Your task to perform on an android device: Show me popular videos on Youtube Image 0: 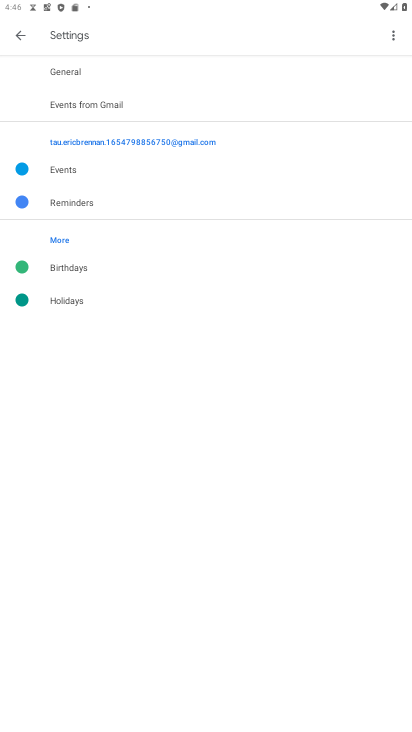
Step 0: press home button
Your task to perform on an android device: Show me popular videos on Youtube Image 1: 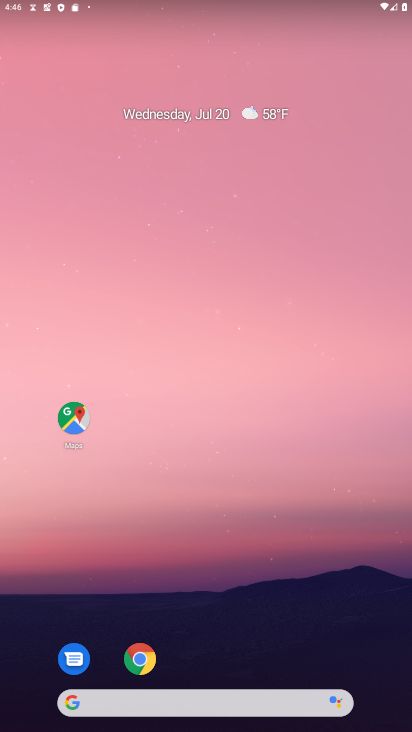
Step 1: drag from (243, 669) to (330, 86)
Your task to perform on an android device: Show me popular videos on Youtube Image 2: 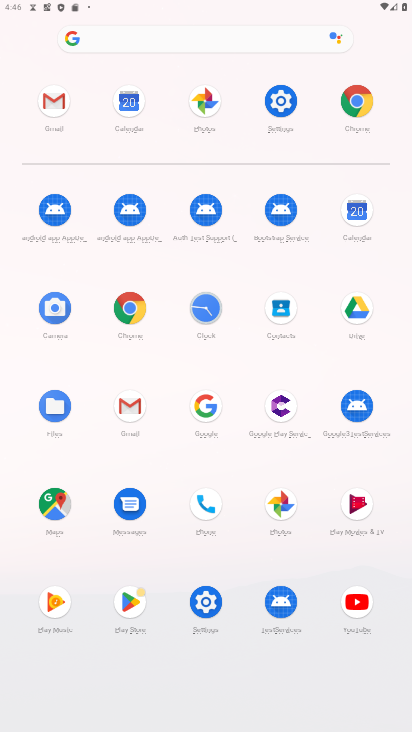
Step 2: click (363, 602)
Your task to perform on an android device: Show me popular videos on Youtube Image 3: 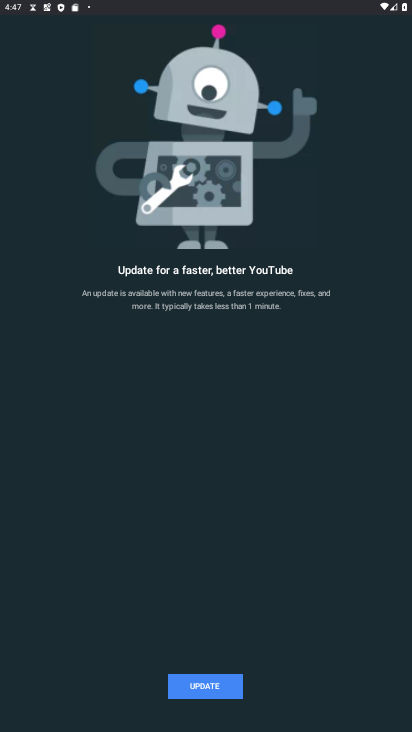
Step 3: click (212, 690)
Your task to perform on an android device: Show me popular videos on Youtube Image 4: 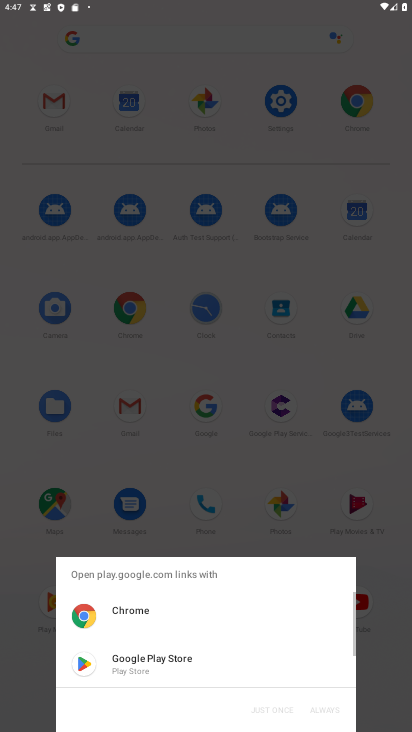
Step 4: click (146, 656)
Your task to perform on an android device: Show me popular videos on Youtube Image 5: 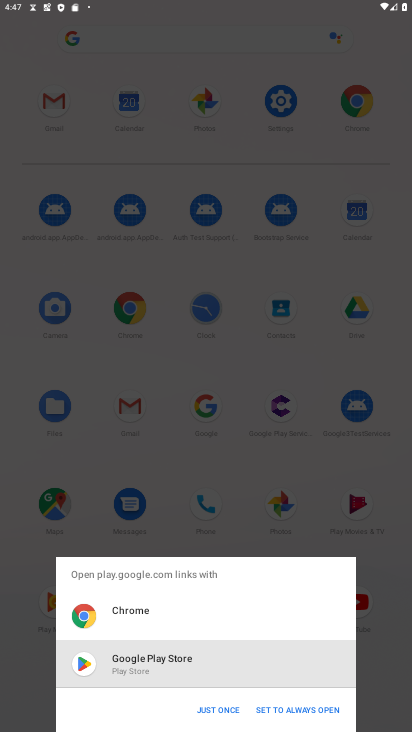
Step 5: click (218, 703)
Your task to perform on an android device: Show me popular videos on Youtube Image 6: 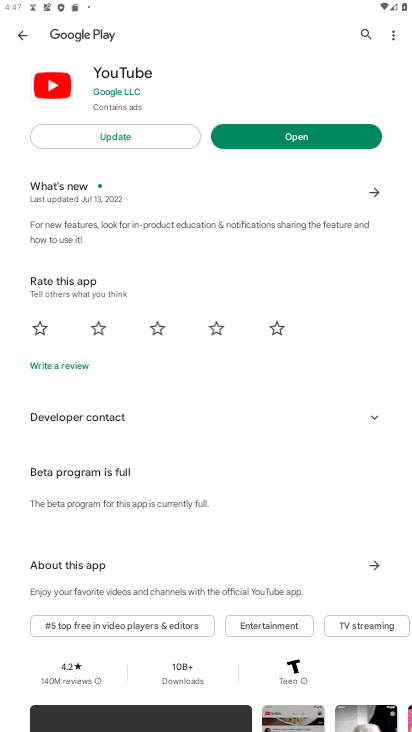
Step 6: click (132, 139)
Your task to perform on an android device: Show me popular videos on Youtube Image 7: 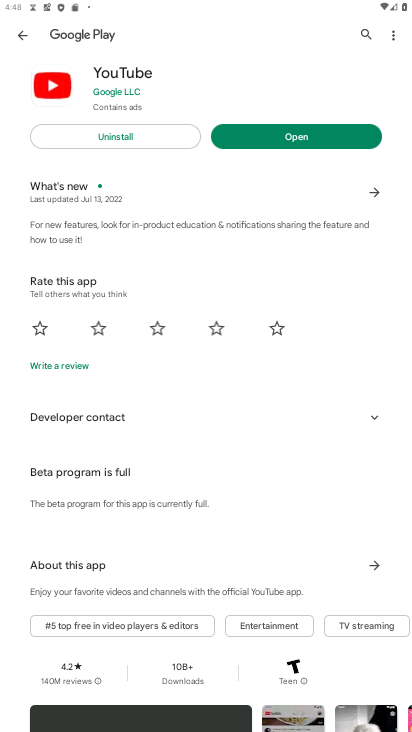
Step 7: click (302, 134)
Your task to perform on an android device: Show me popular videos on Youtube Image 8: 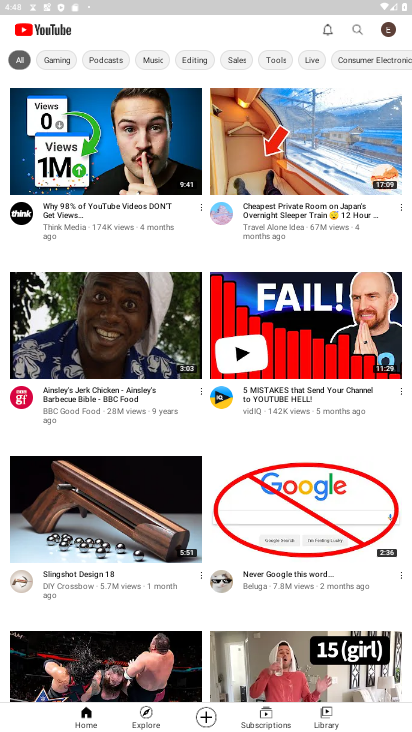
Step 8: task complete